Your task to perform on an android device: turn on showing notifications on the lock screen Image 0: 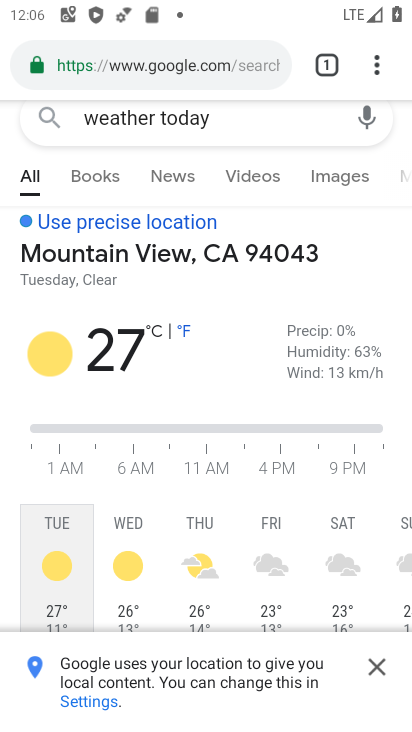
Step 0: press home button
Your task to perform on an android device: turn on showing notifications on the lock screen Image 1: 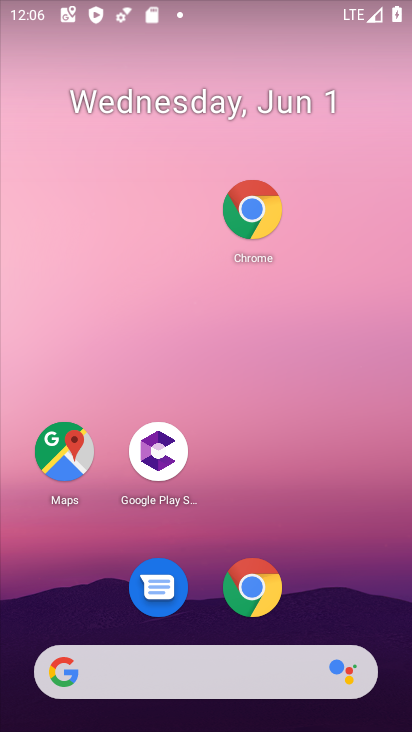
Step 1: drag from (358, 586) to (369, 84)
Your task to perform on an android device: turn on showing notifications on the lock screen Image 2: 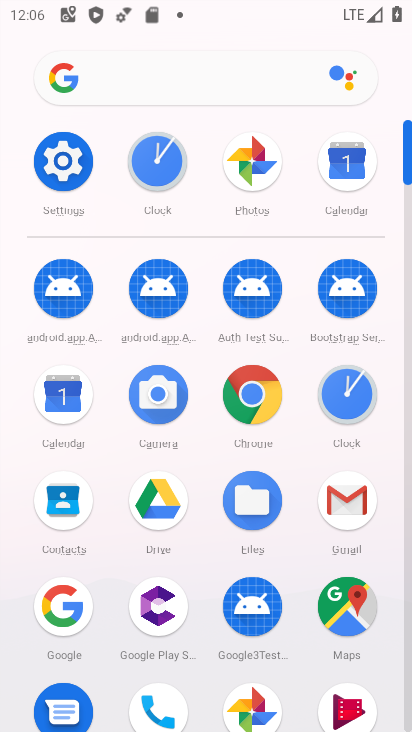
Step 2: click (73, 172)
Your task to perform on an android device: turn on showing notifications on the lock screen Image 3: 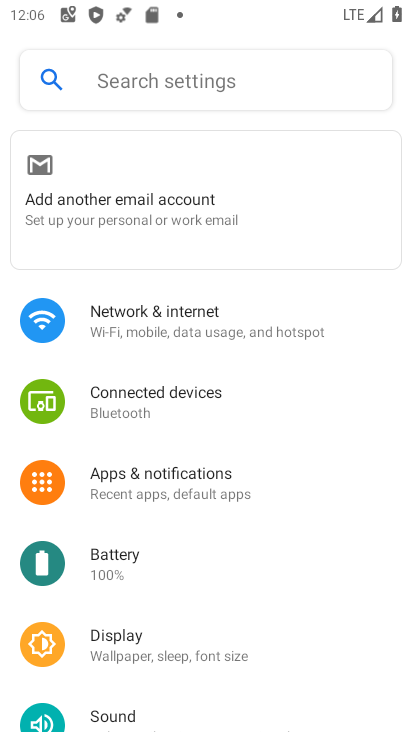
Step 3: click (203, 477)
Your task to perform on an android device: turn on showing notifications on the lock screen Image 4: 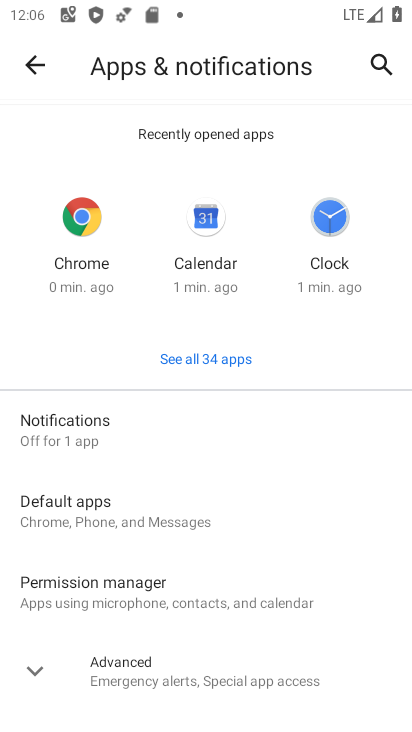
Step 4: click (180, 426)
Your task to perform on an android device: turn on showing notifications on the lock screen Image 5: 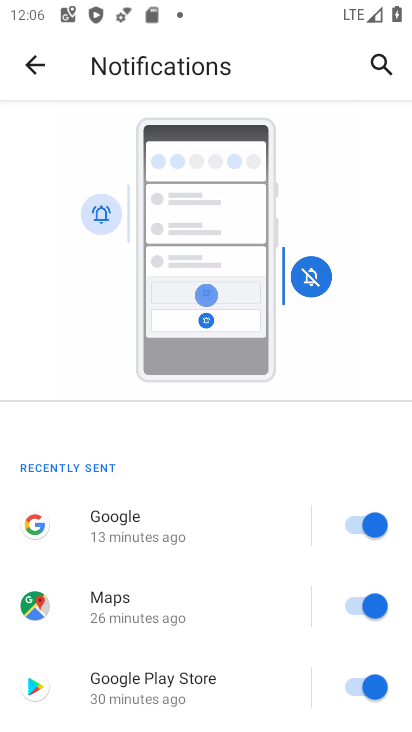
Step 5: drag from (236, 581) to (234, 308)
Your task to perform on an android device: turn on showing notifications on the lock screen Image 6: 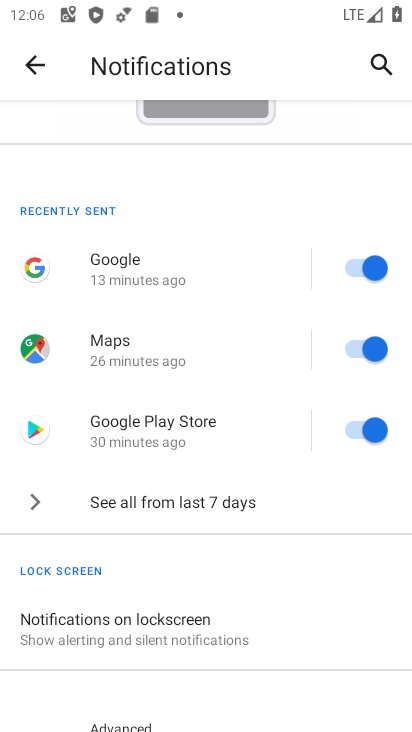
Step 6: click (199, 634)
Your task to perform on an android device: turn on showing notifications on the lock screen Image 7: 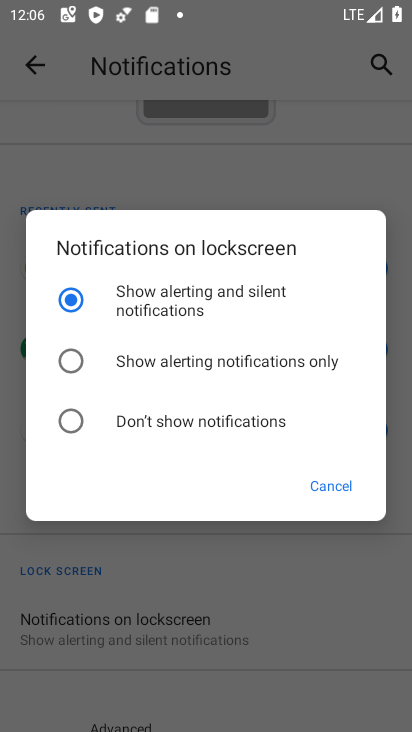
Step 7: task complete